Your task to perform on an android device: Open Youtube and go to the subscriptions tab Image 0: 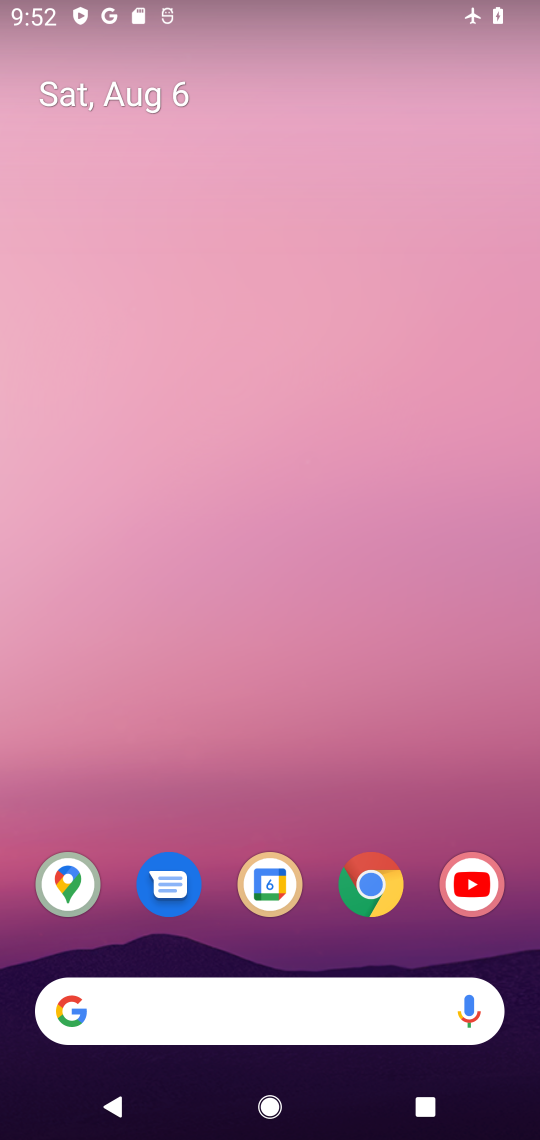
Step 0: click (469, 885)
Your task to perform on an android device: Open Youtube and go to the subscriptions tab Image 1: 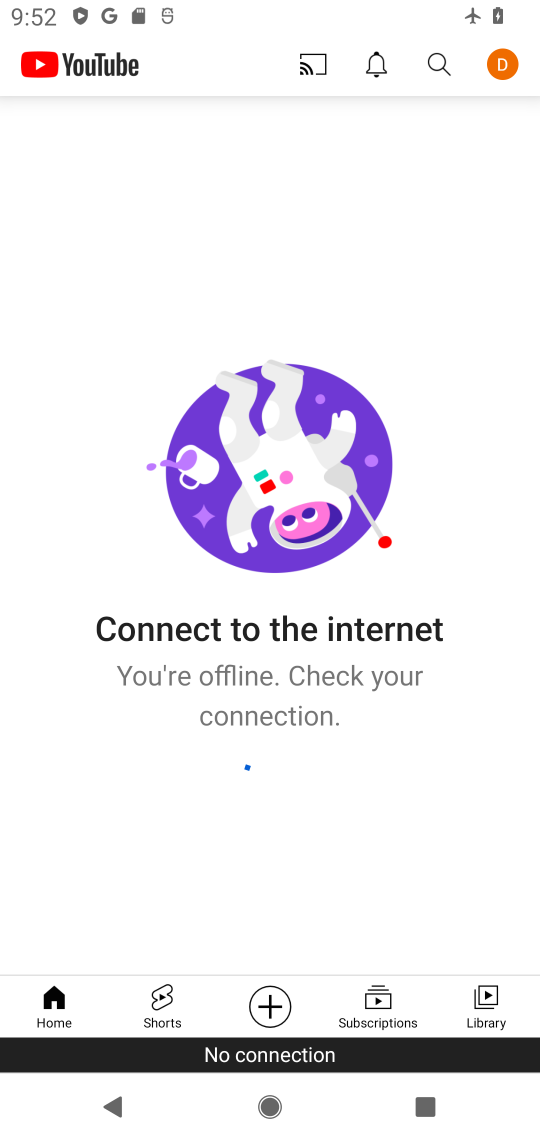
Step 1: click (379, 1001)
Your task to perform on an android device: Open Youtube and go to the subscriptions tab Image 2: 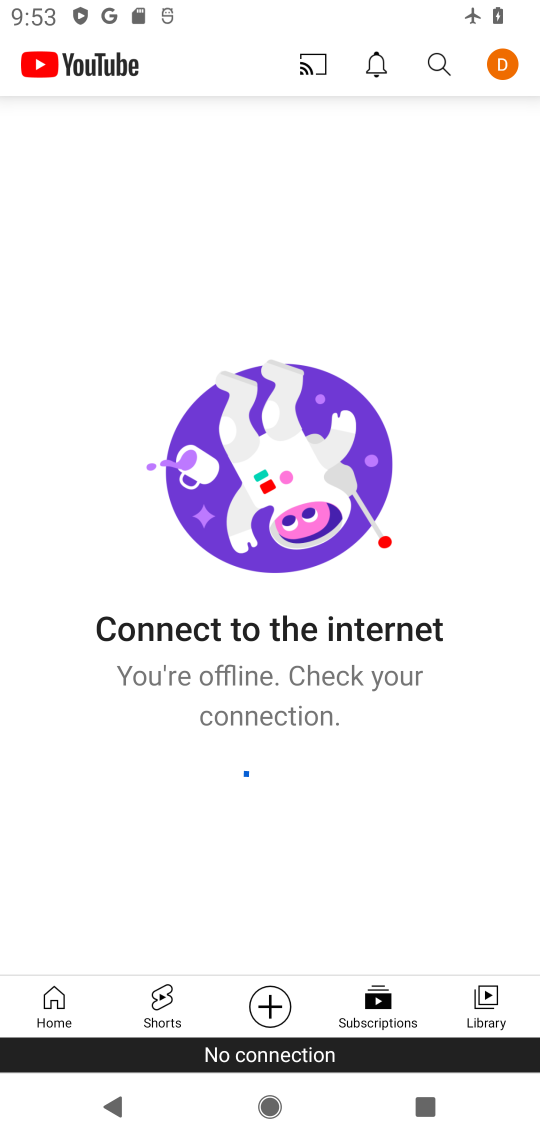
Step 2: task complete